Your task to perform on an android device: Open Wikipedia Image 0: 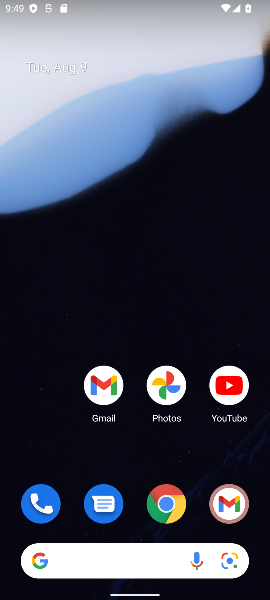
Step 0: click (166, 500)
Your task to perform on an android device: Open Wikipedia Image 1: 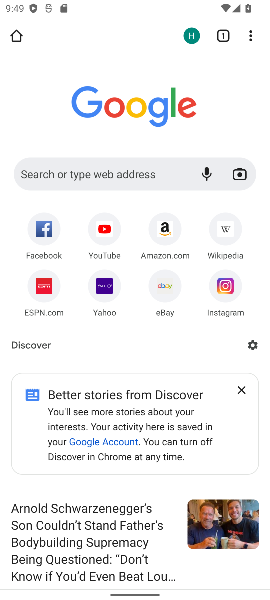
Step 1: click (72, 174)
Your task to perform on an android device: Open Wikipedia Image 2: 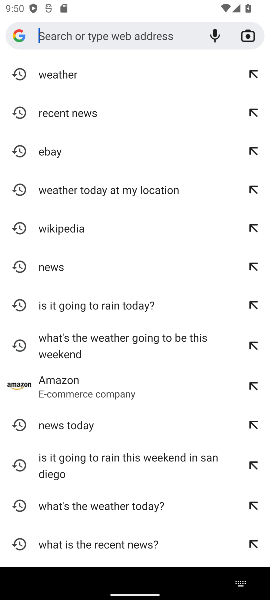
Step 2: type "Wikipedia"
Your task to perform on an android device: Open Wikipedia Image 3: 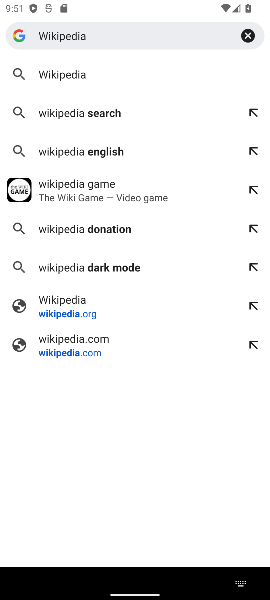
Step 3: click (70, 75)
Your task to perform on an android device: Open Wikipedia Image 4: 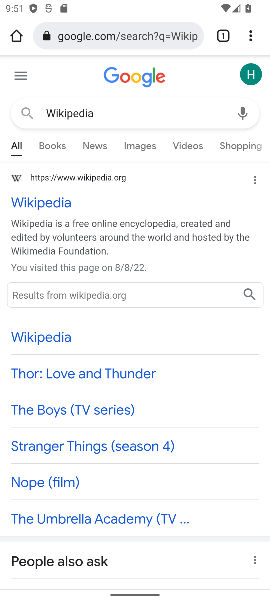
Step 4: task complete